Your task to perform on an android device: turn on bluetooth scan Image 0: 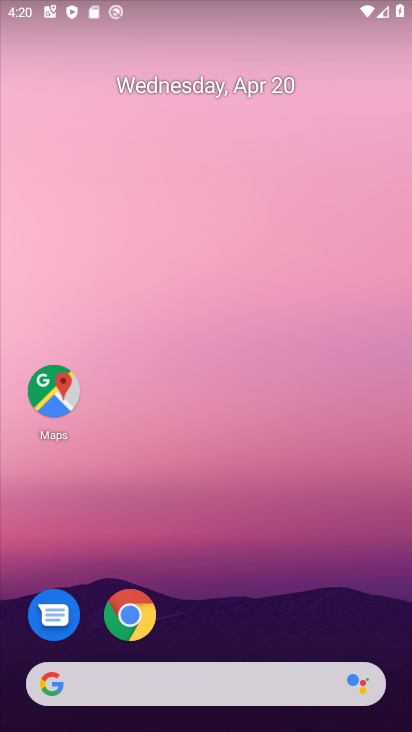
Step 0: drag from (237, 609) to (279, 3)
Your task to perform on an android device: turn on bluetooth scan Image 1: 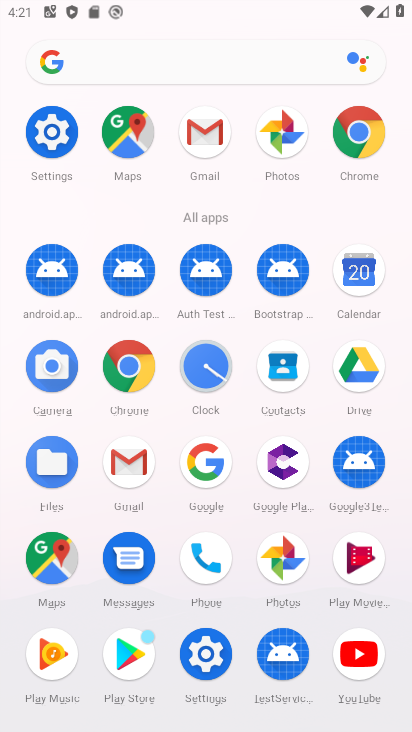
Step 1: click (53, 159)
Your task to perform on an android device: turn on bluetooth scan Image 2: 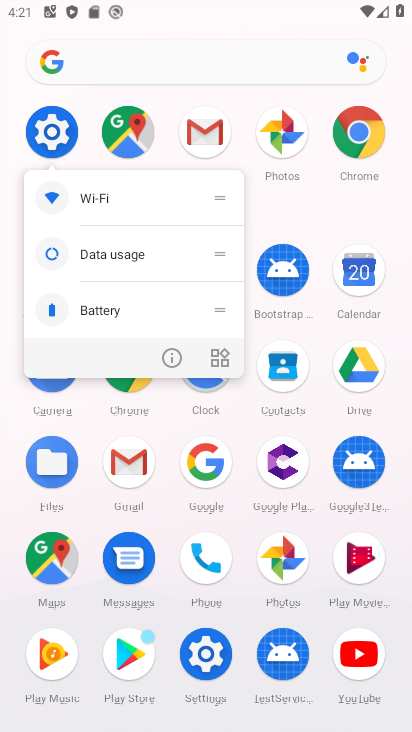
Step 2: click (38, 110)
Your task to perform on an android device: turn on bluetooth scan Image 3: 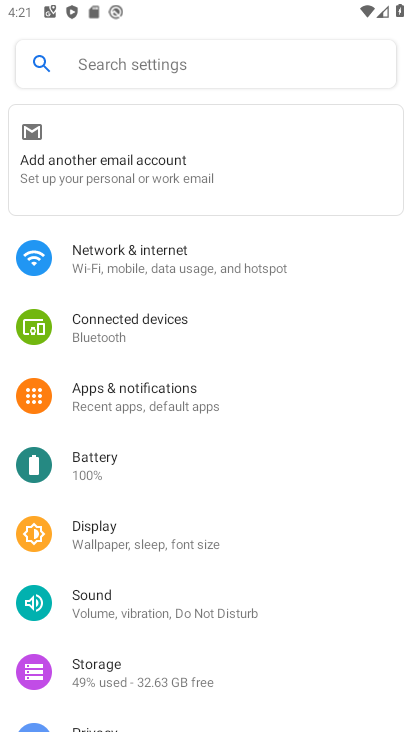
Step 3: drag from (126, 637) to (162, 324)
Your task to perform on an android device: turn on bluetooth scan Image 4: 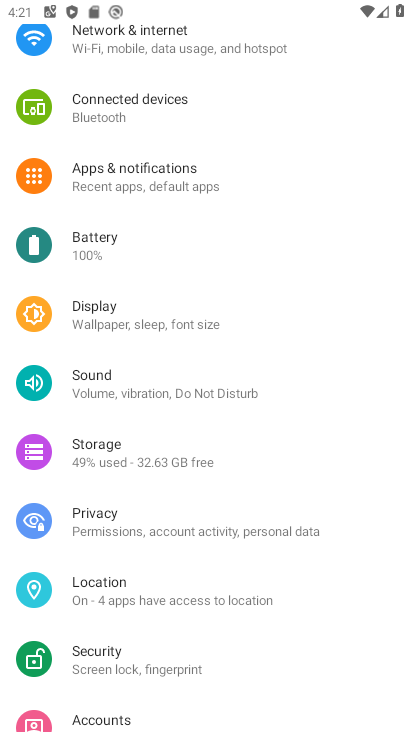
Step 4: click (105, 601)
Your task to perform on an android device: turn on bluetooth scan Image 5: 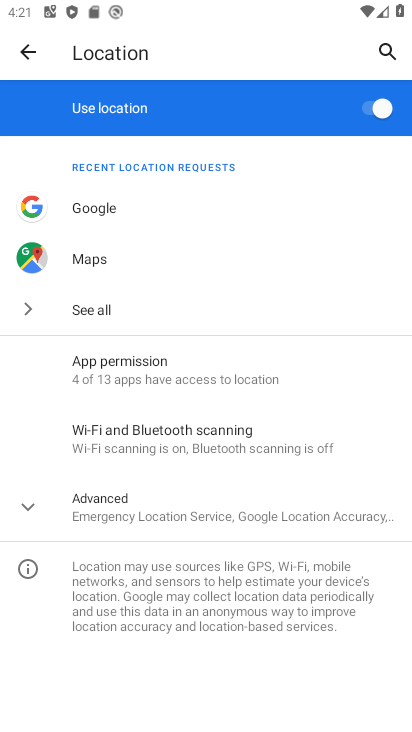
Step 5: click (151, 448)
Your task to perform on an android device: turn on bluetooth scan Image 6: 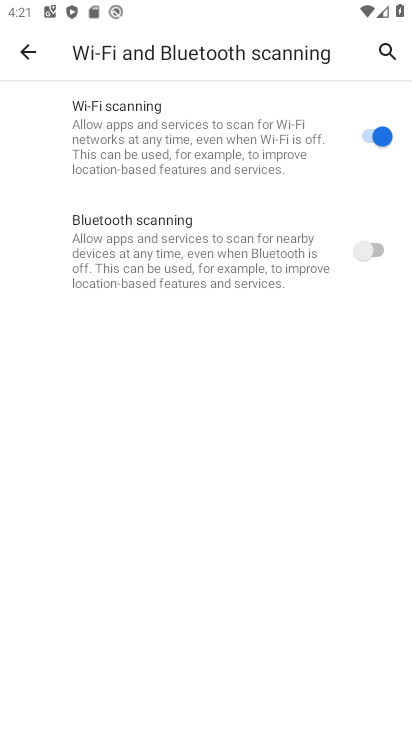
Step 6: click (375, 247)
Your task to perform on an android device: turn on bluetooth scan Image 7: 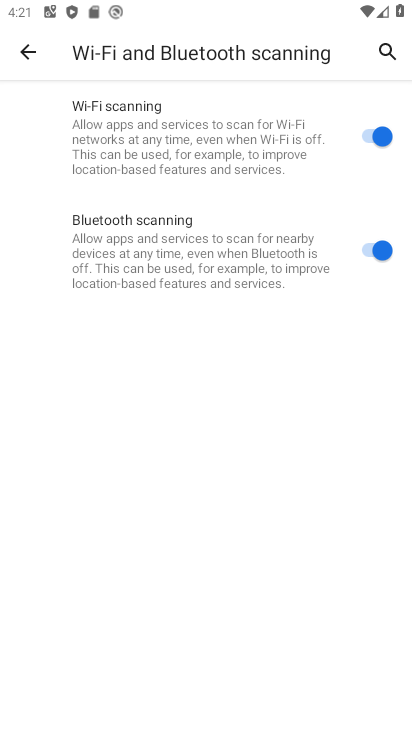
Step 7: task complete